Your task to perform on an android device: What's on my calendar today? Image 0: 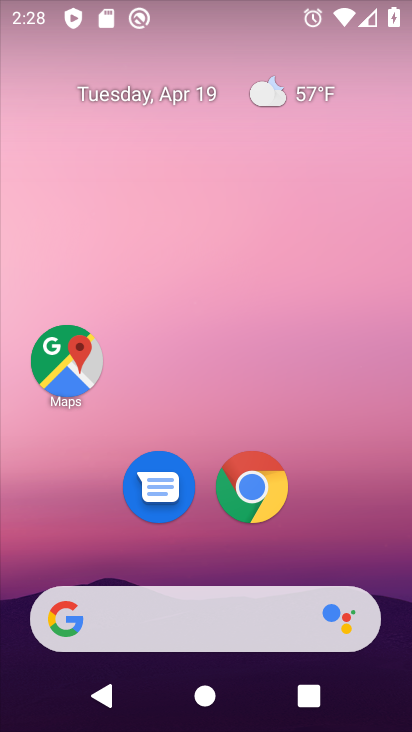
Step 0: drag from (376, 526) to (402, 187)
Your task to perform on an android device: What's on my calendar today? Image 1: 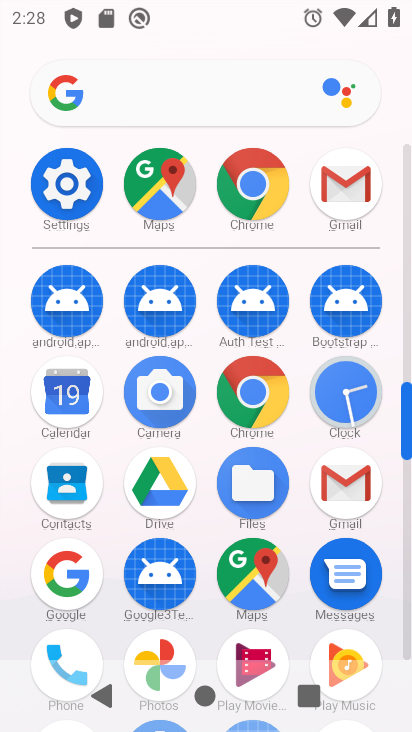
Step 1: click (60, 396)
Your task to perform on an android device: What's on my calendar today? Image 2: 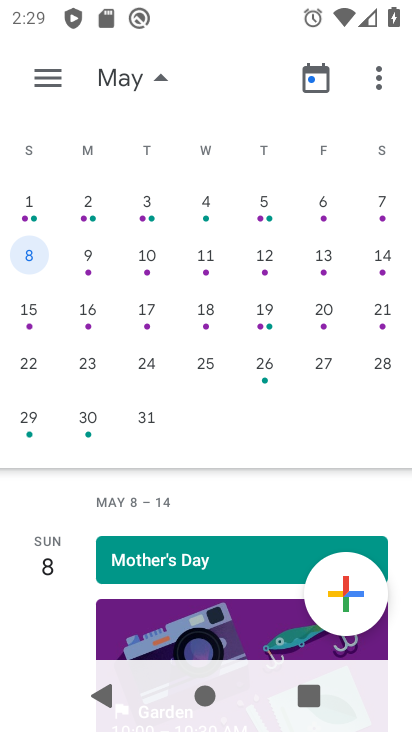
Step 2: click (56, 69)
Your task to perform on an android device: What's on my calendar today? Image 3: 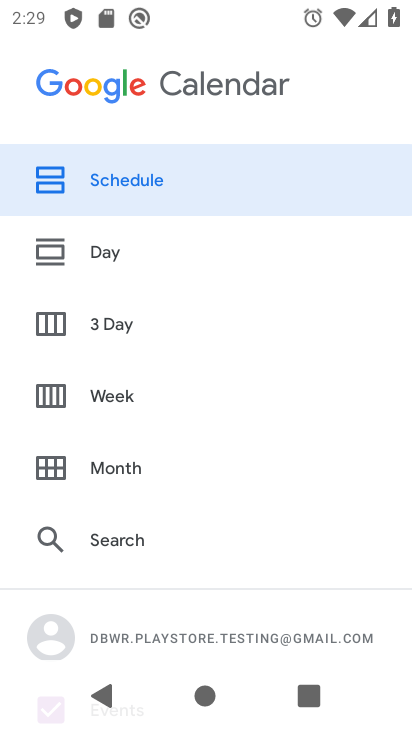
Step 3: click (116, 245)
Your task to perform on an android device: What's on my calendar today? Image 4: 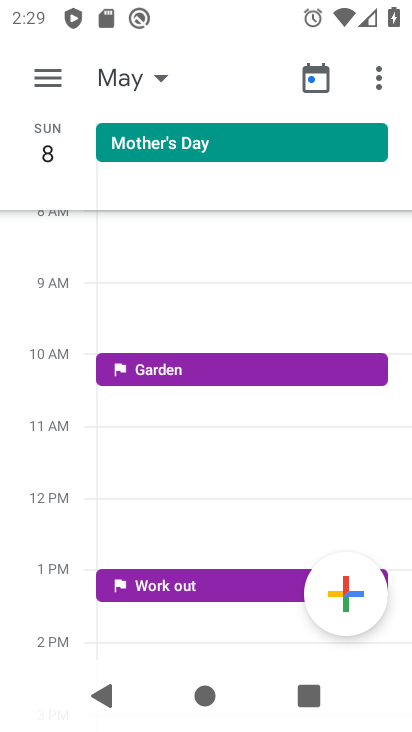
Step 4: click (115, 74)
Your task to perform on an android device: What's on my calendar today? Image 5: 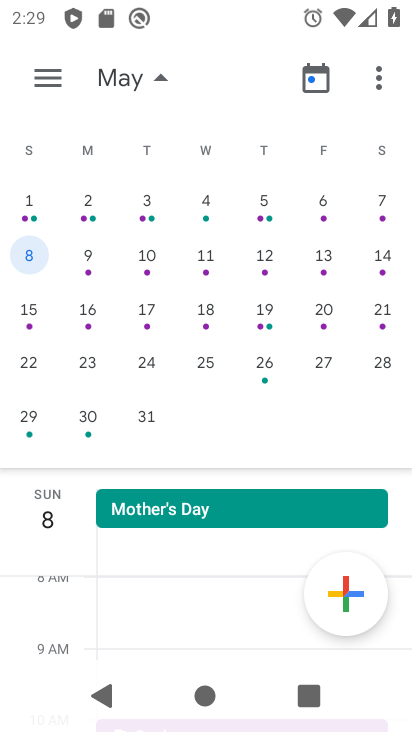
Step 5: drag from (73, 183) to (360, 189)
Your task to perform on an android device: What's on my calendar today? Image 6: 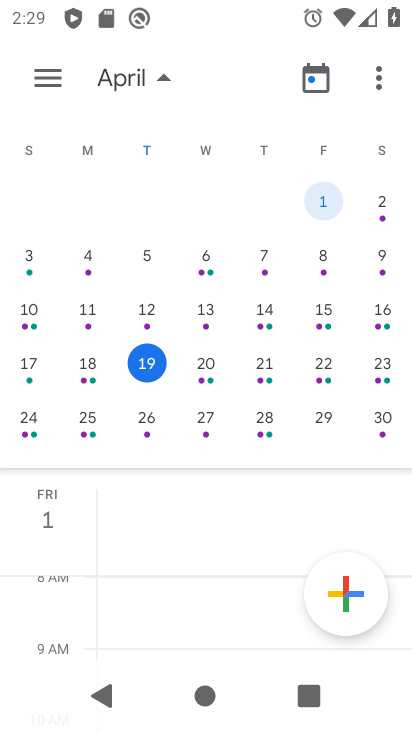
Step 6: click (148, 367)
Your task to perform on an android device: What's on my calendar today? Image 7: 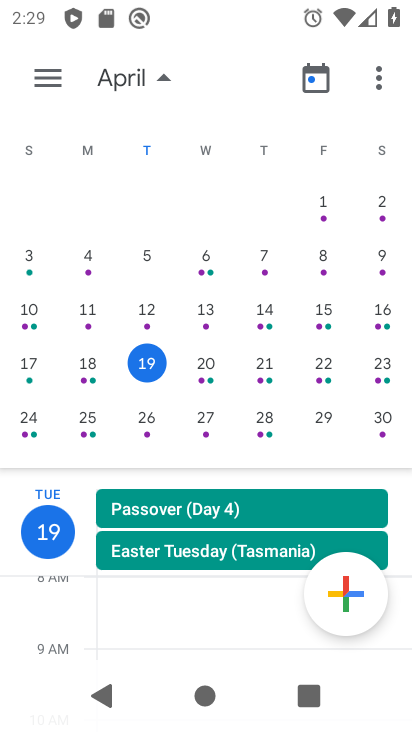
Step 7: task complete